Your task to perform on an android device: Search for Mexican restaurants on Maps Image 0: 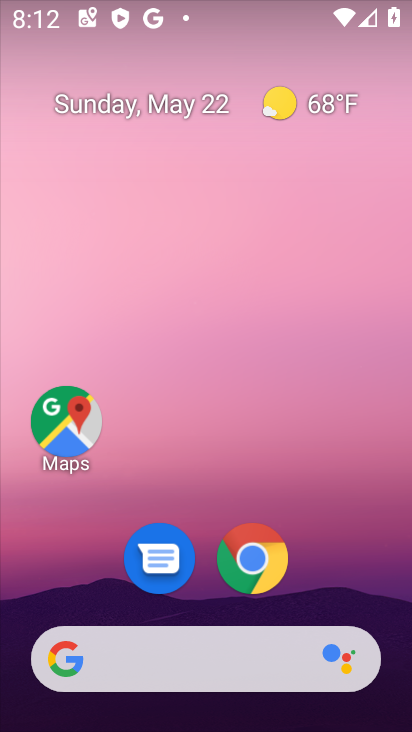
Step 0: drag from (302, 535) to (304, 226)
Your task to perform on an android device: Search for Mexican restaurants on Maps Image 1: 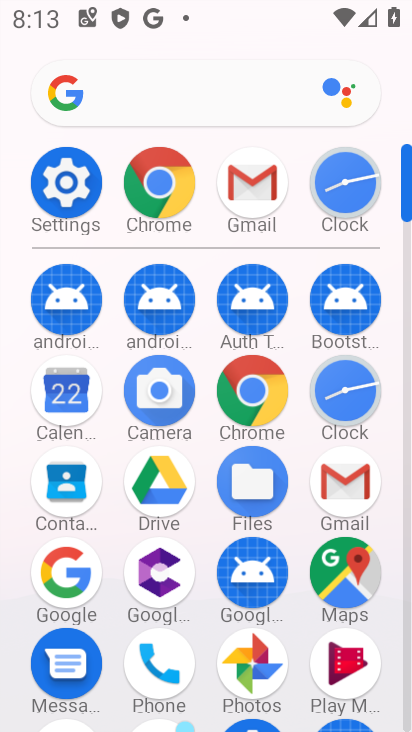
Step 1: click (357, 563)
Your task to perform on an android device: Search for Mexican restaurants on Maps Image 2: 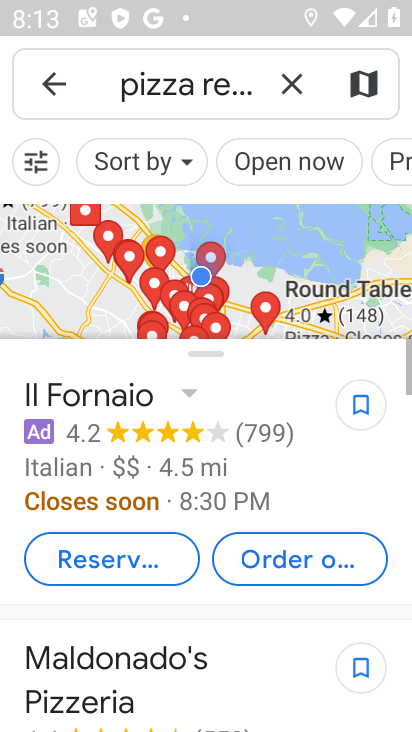
Step 2: click (267, 88)
Your task to perform on an android device: Search for Mexican restaurants on Maps Image 3: 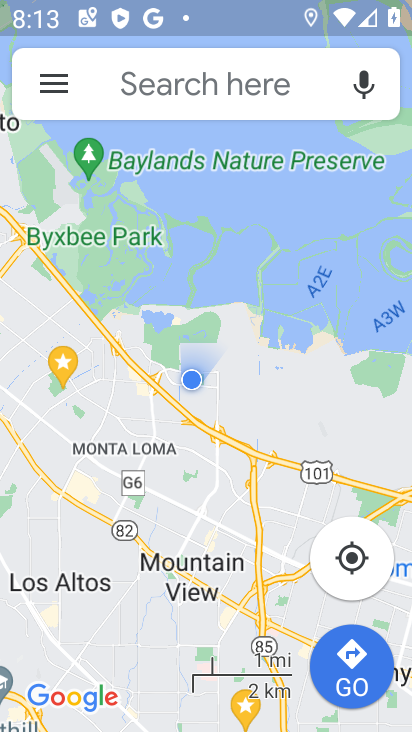
Step 3: click (202, 88)
Your task to perform on an android device: Search for Mexican restaurants on Maps Image 4: 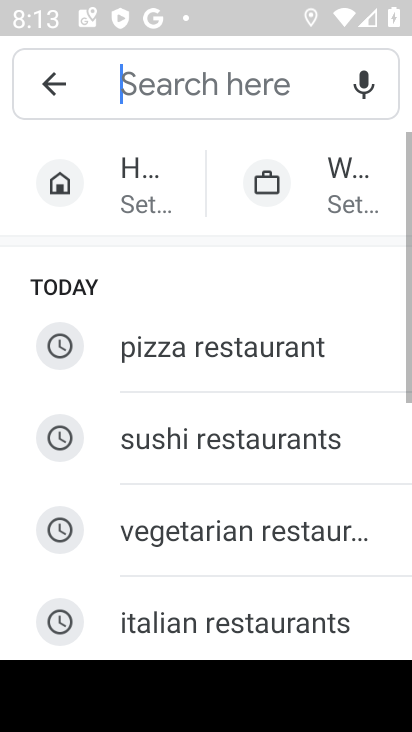
Step 4: drag from (201, 594) to (227, 269)
Your task to perform on an android device: Search for Mexican restaurants on Maps Image 5: 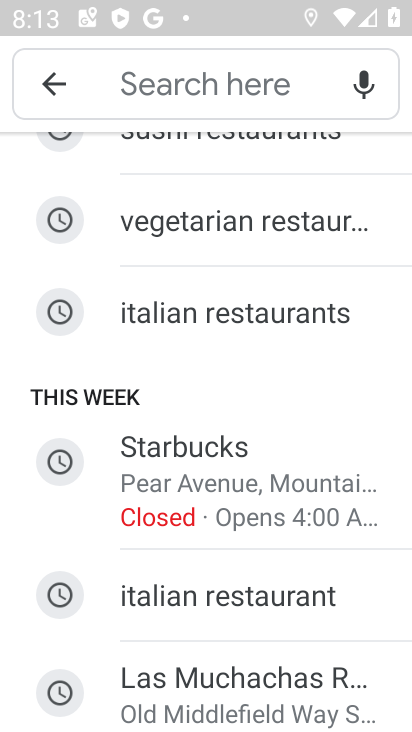
Step 5: click (174, 83)
Your task to perform on an android device: Search for Mexican restaurants on Maps Image 6: 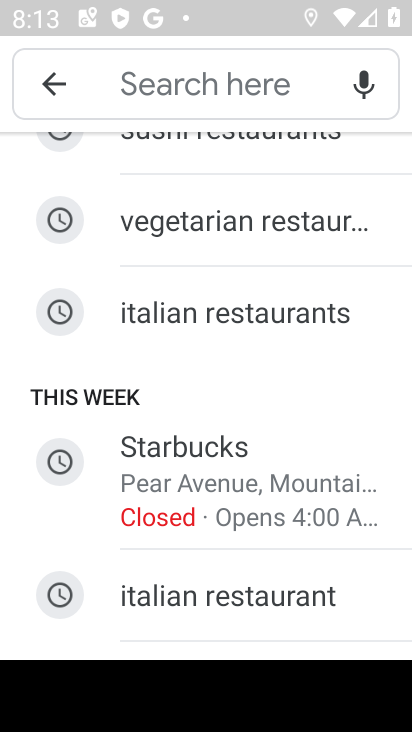
Step 6: type "Mexican restaurants"
Your task to perform on an android device: Search for Mexican restaurants on Maps Image 7: 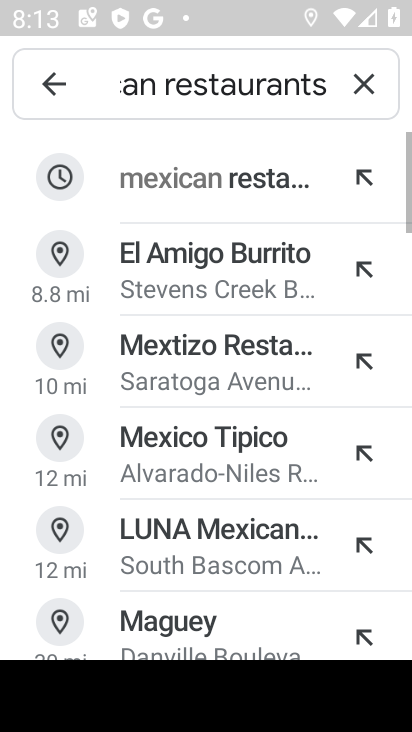
Step 7: click (225, 183)
Your task to perform on an android device: Search for Mexican restaurants on Maps Image 8: 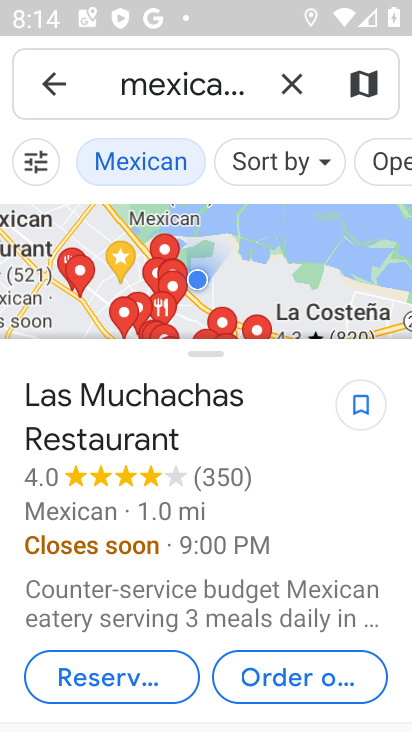
Step 8: task complete